Your task to perform on an android device: change the clock display to show seconds Image 0: 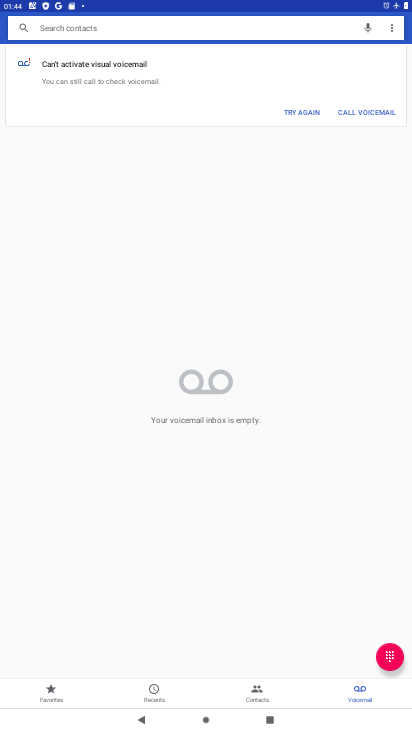
Step 0: press home button
Your task to perform on an android device: change the clock display to show seconds Image 1: 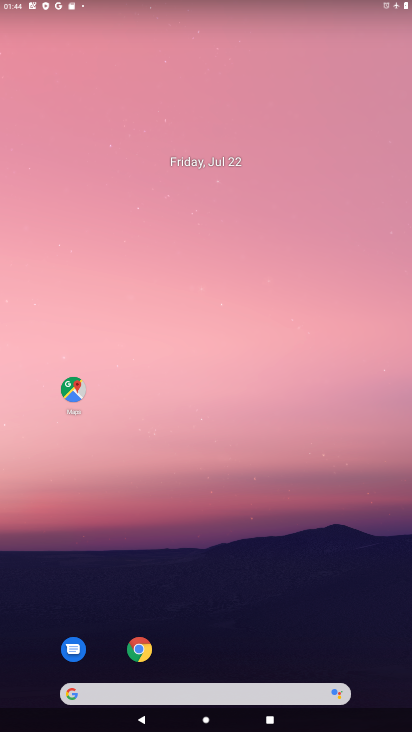
Step 1: drag from (290, 591) to (332, 125)
Your task to perform on an android device: change the clock display to show seconds Image 2: 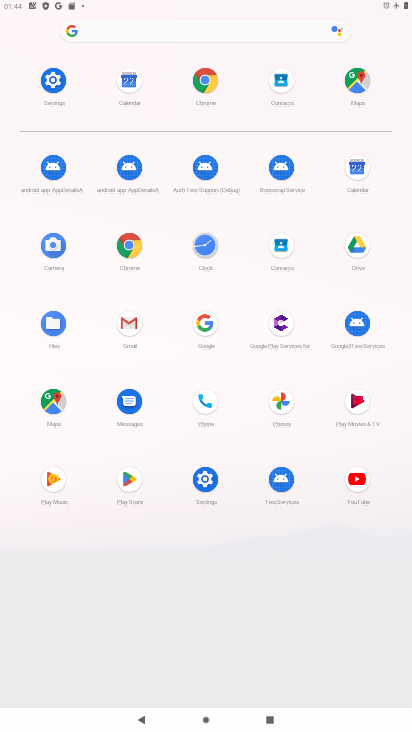
Step 2: click (205, 244)
Your task to perform on an android device: change the clock display to show seconds Image 3: 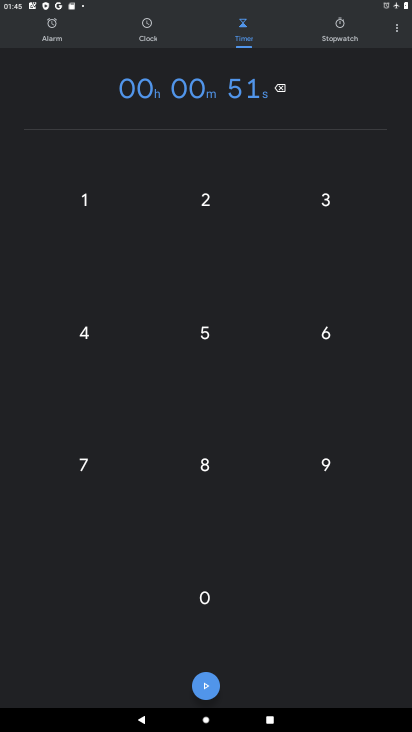
Step 3: click (401, 29)
Your task to perform on an android device: change the clock display to show seconds Image 4: 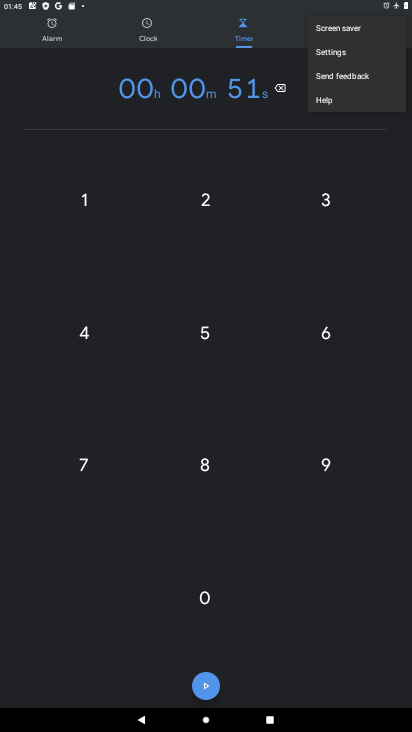
Step 4: click (325, 52)
Your task to perform on an android device: change the clock display to show seconds Image 5: 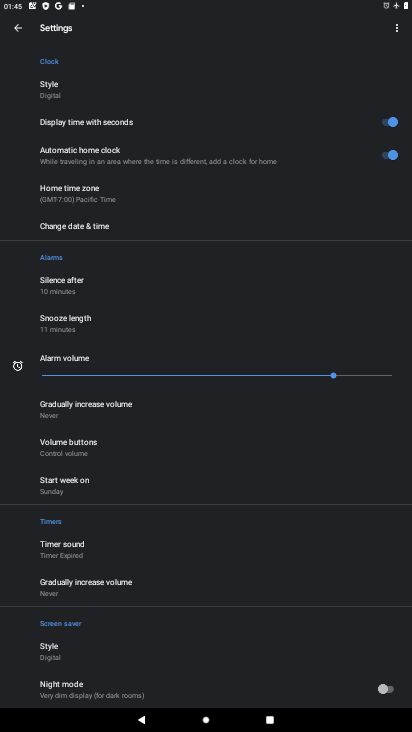
Step 5: task complete